Your task to perform on an android device: set the timer Image 0: 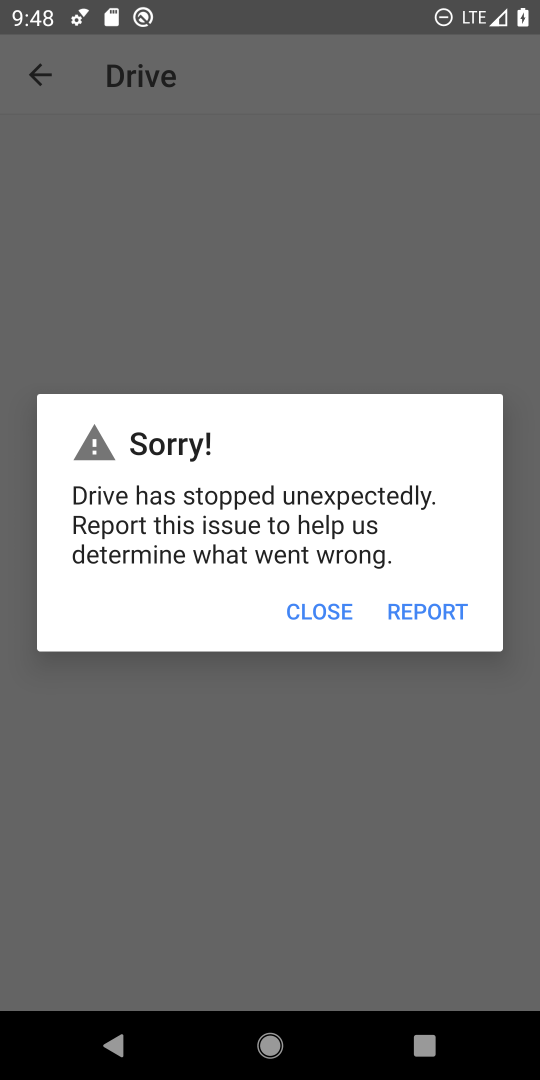
Step 0: click (263, 1049)
Your task to perform on an android device: set the timer Image 1: 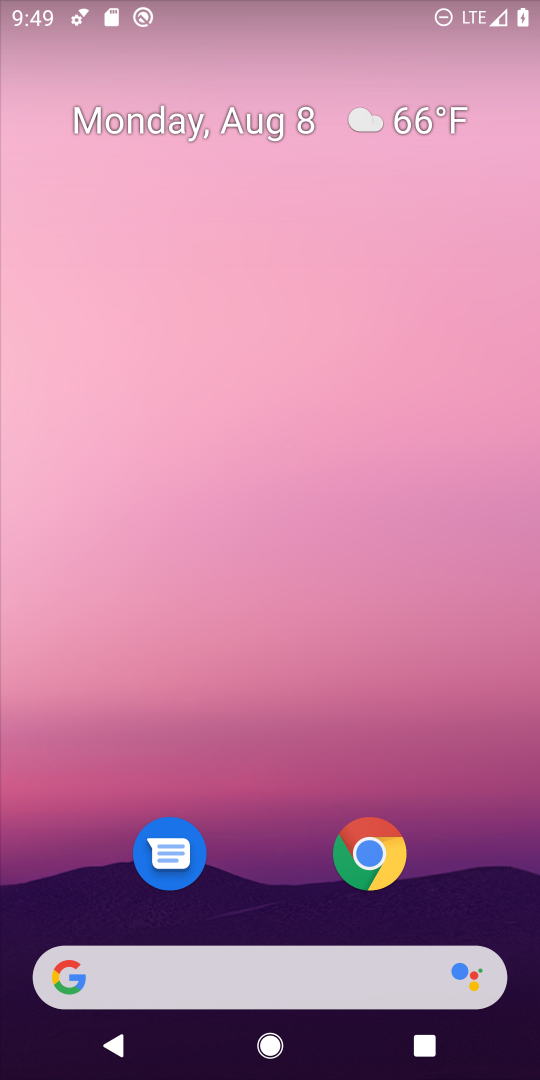
Step 1: drag from (246, 926) to (107, 3)
Your task to perform on an android device: set the timer Image 2: 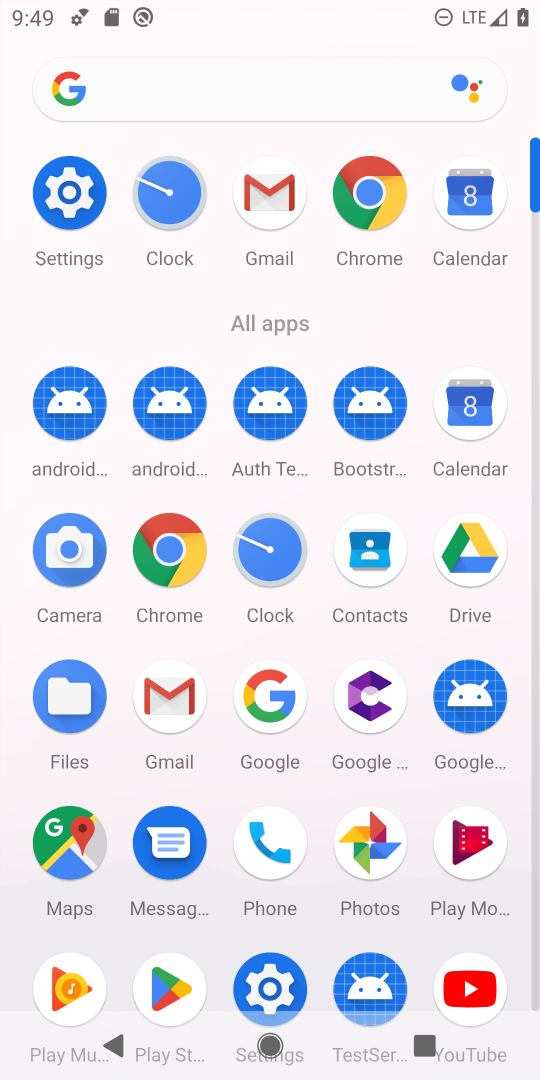
Step 2: click (165, 207)
Your task to perform on an android device: set the timer Image 3: 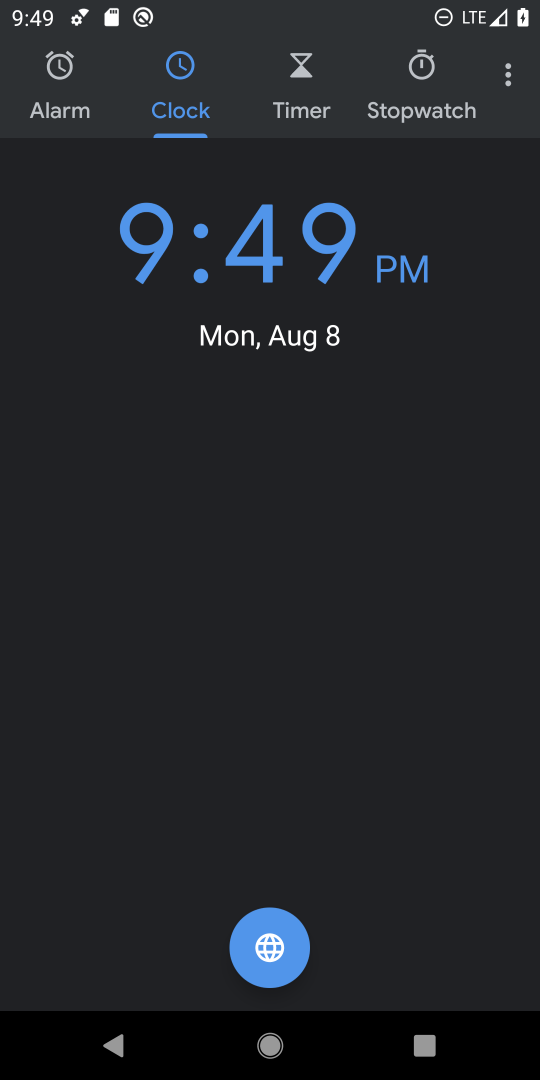
Step 3: click (301, 68)
Your task to perform on an android device: set the timer Image 4: 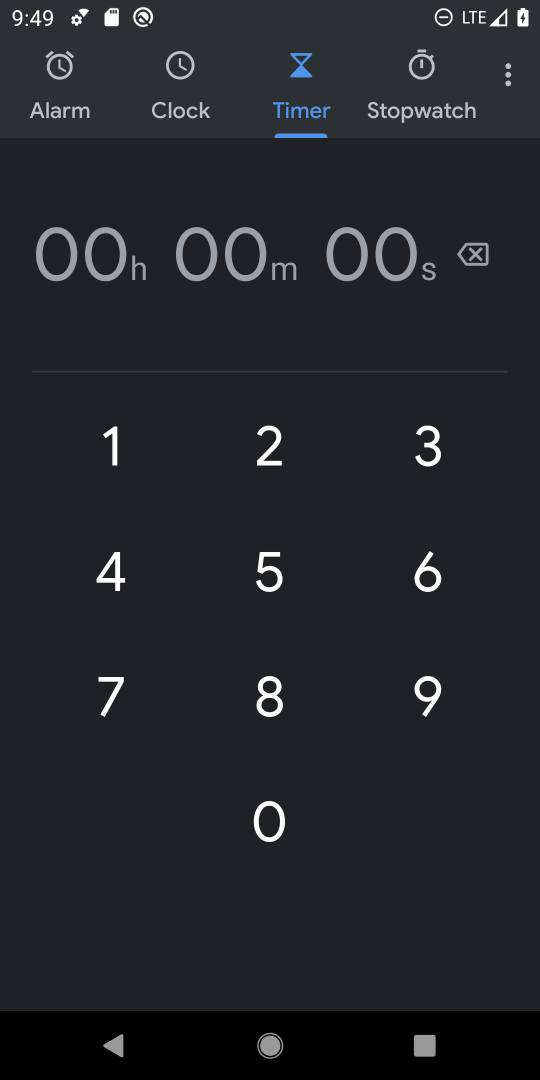
Step 4: click (268, 425)
Your task to perform on an android device: set the timer Image 5: 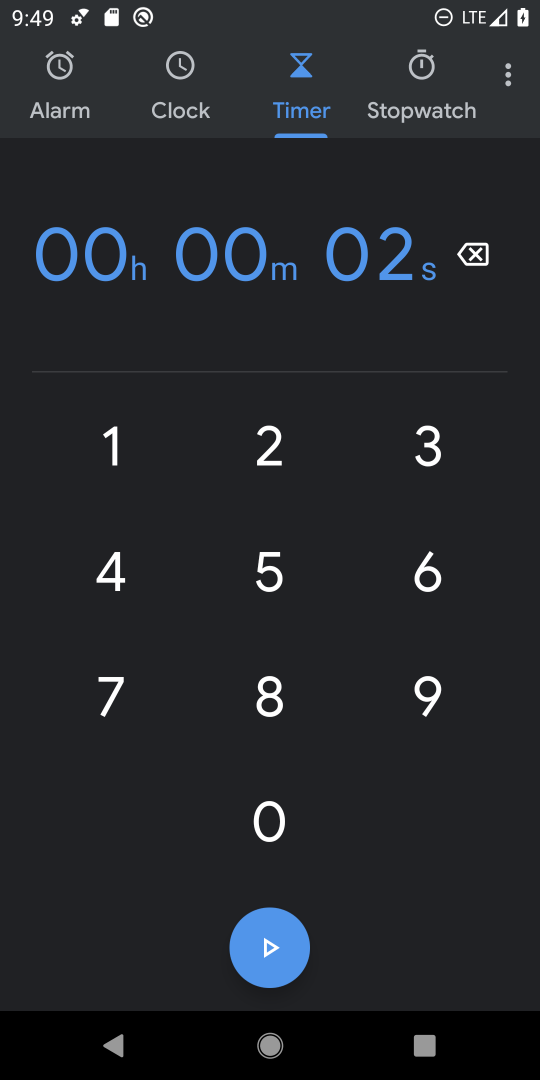
Step 5: click (273, 839)
Your task to perform on an android device: set the timer Image 6: 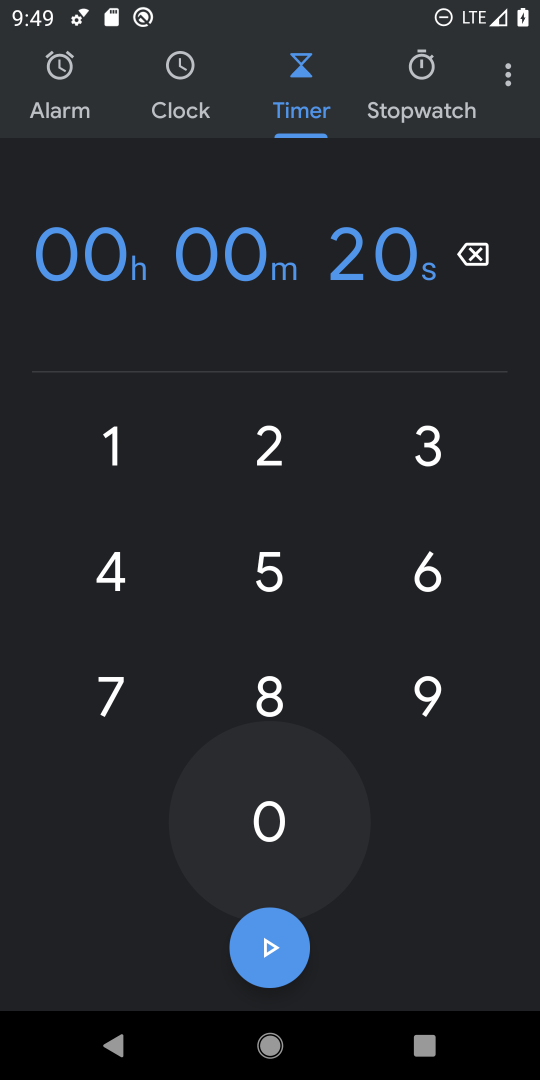
Step 6: click (273, 839)
Your task to perform on an android device: set the timer Image 7: 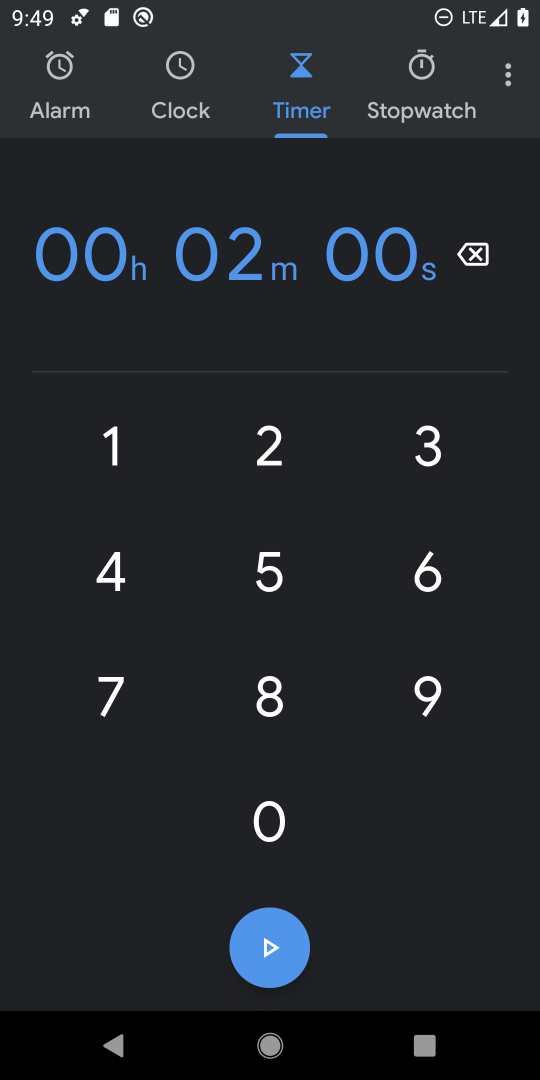
Step 7: task complete